Your task to perform on an android device: change the clock display to analog Image 0: 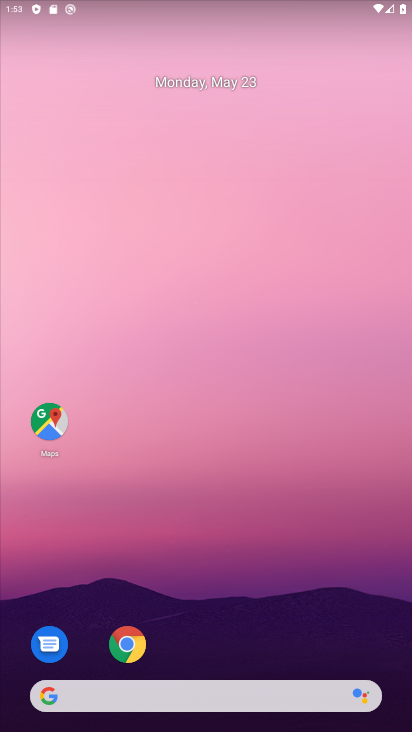
Step 0: drag from (306, 603) to (302, 107)
Your task to perform on an android device: change the clock display to analog Image 1: 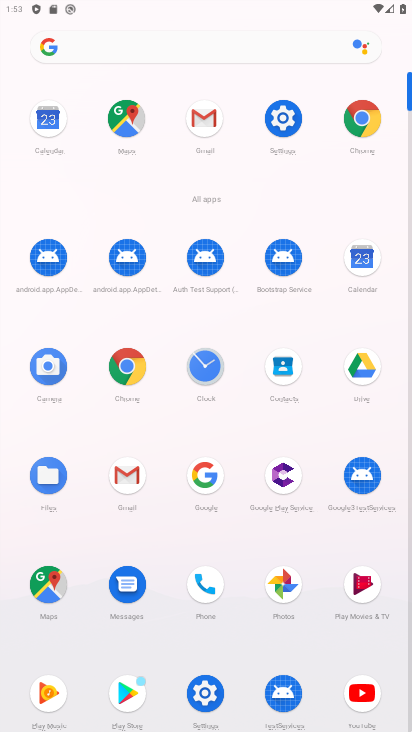
Step 1: click (207, 379)
Your task to perform on an android device: change the clock display to analog Image 2: 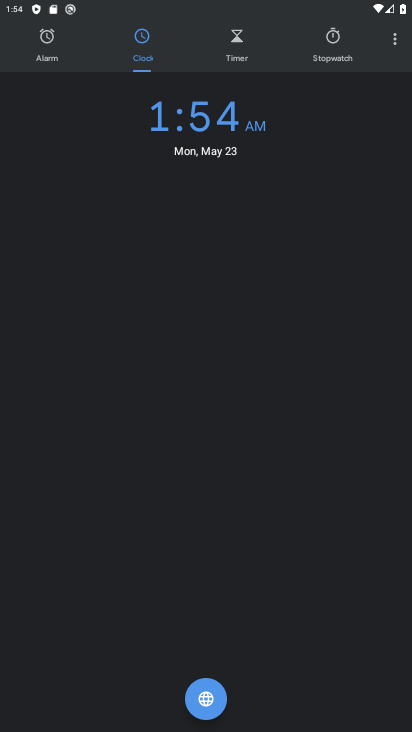
Step 2: click (400, 49)
Your task to perform on an android device: change the clock display to analog Image 3: 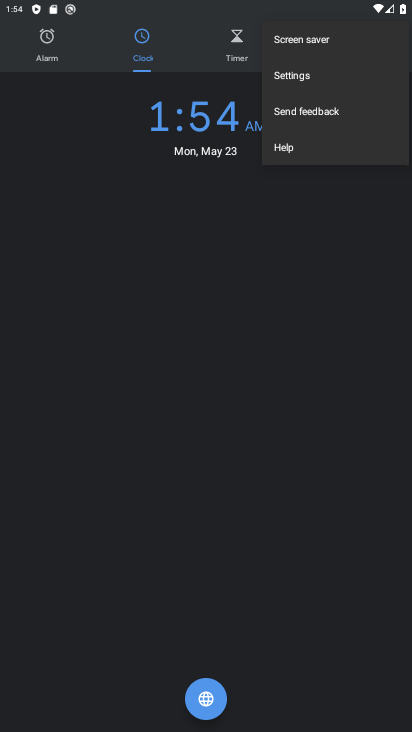
Step 3: click (291, 79)
Your task to perform on an android device: change the clock display to analog Image 4: 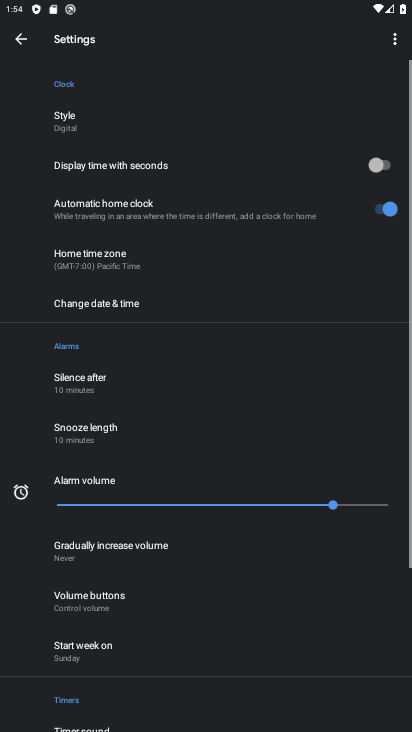
Step 4: click (74, 125)
Your task to perform on an android device: change the clock display to analog Image 5: 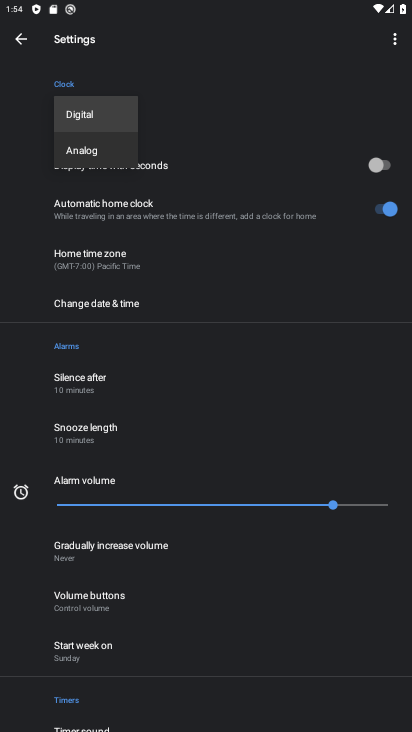
Step 5: click (74, 146)
Your task to perform on an android device: change the clock display to analog Image 6: 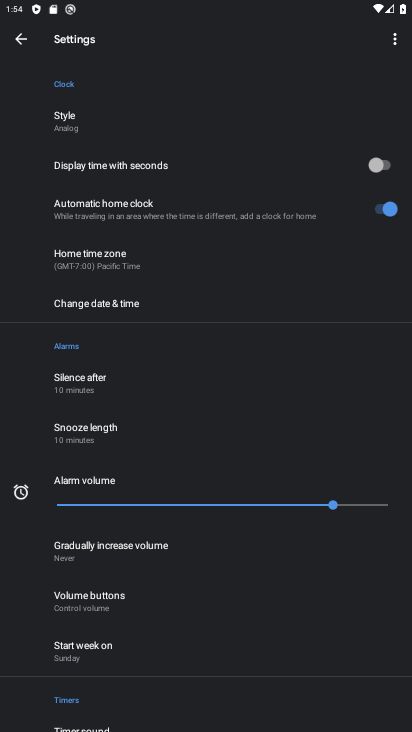
Step 6: click (62, 120)
Your task to perform on an android device: change the clock display to analog Image 7: 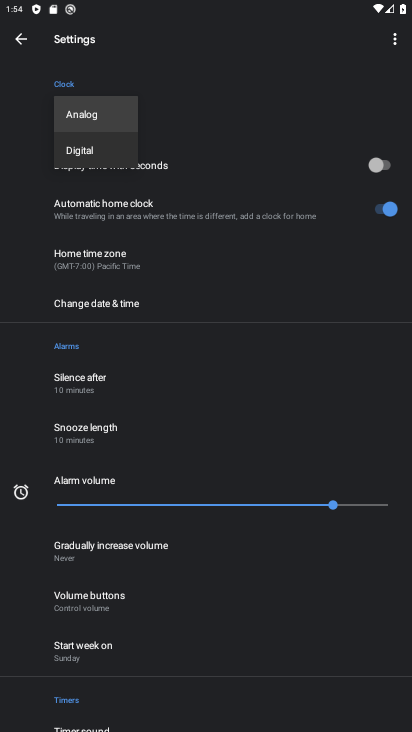
Step 7: task complete